Your task to perform on an android device: Search for "rayovac triple a" on target, select the first entry, add it to the cart, then select checkout. Image 0: 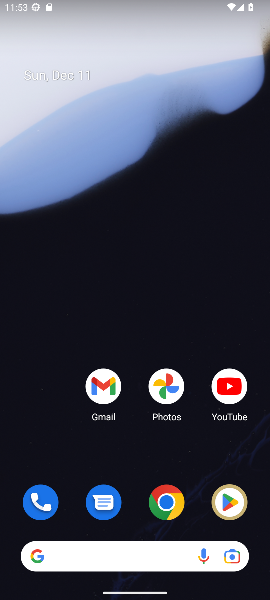
Step 0: click (131, 566)
Your task to perform on an android device: Search for "rayovac triple a" on target, select the first entry, add it to the cart, then select checkout. Image 1: 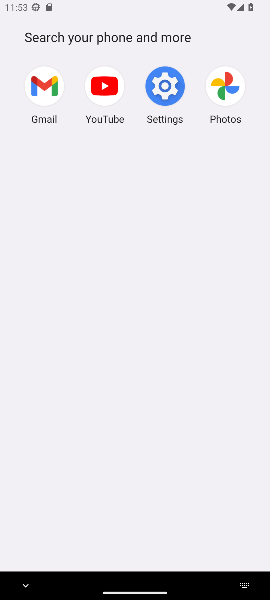
Step 1: press home button
Your task to perform on an android device: Search for "rayovac triple a" on target, select the first entry, add it to the cart, then select checkout. Image 2: 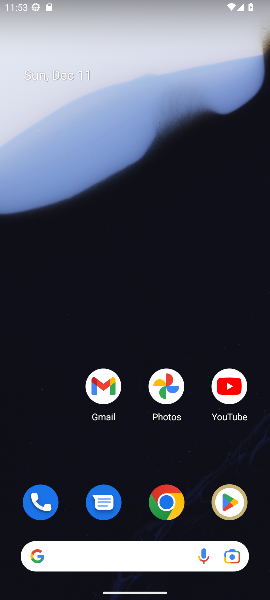
Step 2: click (177, 521)
Your task to perform on an android device: Search for "rayovac triple a" on target, select the first entry, add it to the cart, then select checkout. Image 3: 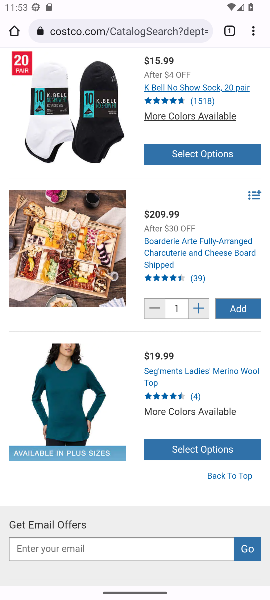
Step 3: click (169, 18)
Your task to perform on an android device: Search for "rayovac triple a" on target, select the first entry, add it to the cart, then select checkout. Image 4: 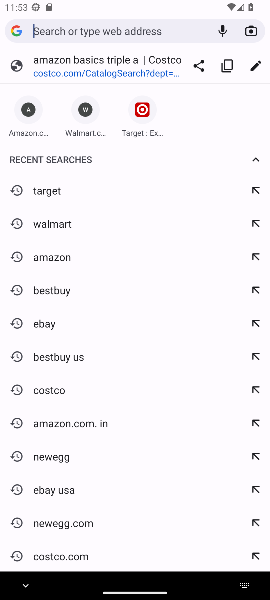
Step 4: type "target"
Your task to perform on an android device: Search for "rayovac triple a" on target, select the first entry, add it to the cart, then select checkout. Image 5: 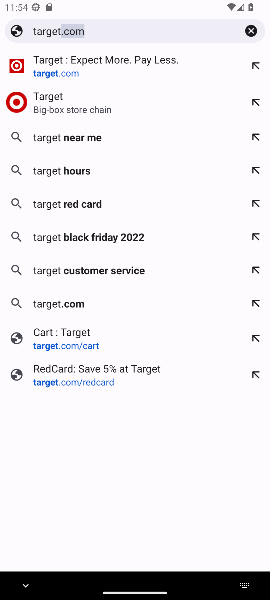
Step 5: click (106, 86)
Your task to perform on an android device: Search for "rayovac triple a" on target, select the first entry, add it to the cart, then select checkout. Image 6: 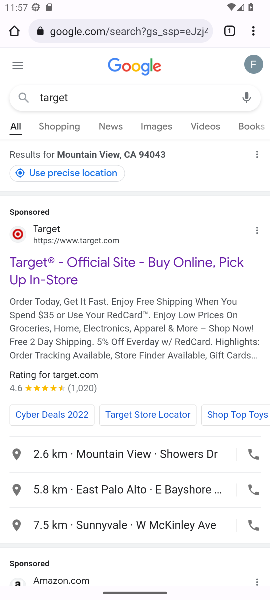
Step 6: click (175, 277)
Your task to perform on an android device: Search for "rayovac triple a" on target, select the first entry, add it to the cart, then select checkout. Image 7: 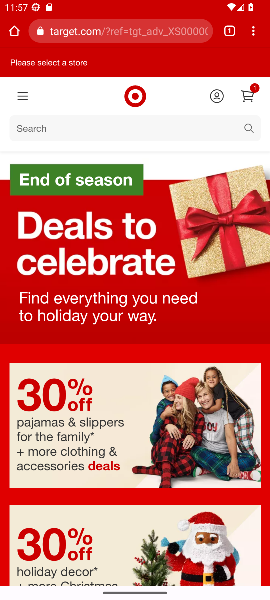
Step 7: click (149, 126)
Your task to perform on an android device: Search for "rayovac triple a" on target, select the first entry, add it to the cart, then select checkout. Image 8: 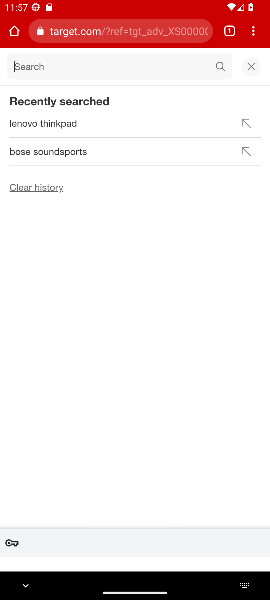
Step 8: type "rayovac triple"
Your task to perform on an android device: Search for "rayovac triple a" on target, select the first entry, add it to the cart, then select checkout. Image 9: 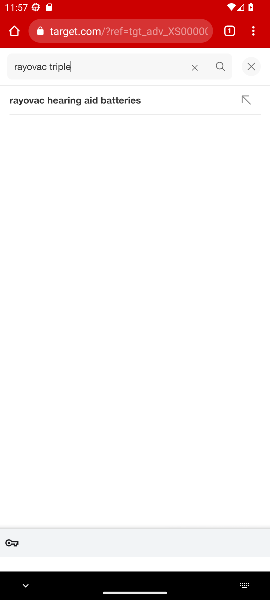
Step 9: click (114, 107)
Your task to perform on an android device: Search for "rayovac triple a" on target, select the first entry, add it to the cart, then select checkout. Image 10: 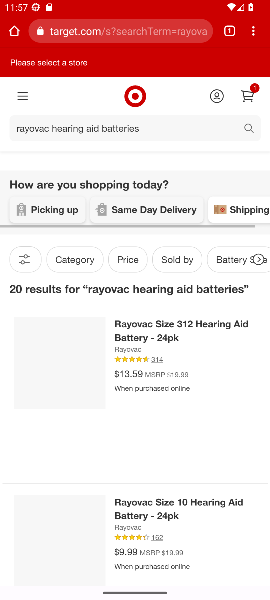
Step 10: click (176, 339)
Your task to perform on an android device: Search for "rayovac triple a" on target, select the first entry, add it to the cart, then select checkout. Image 11: 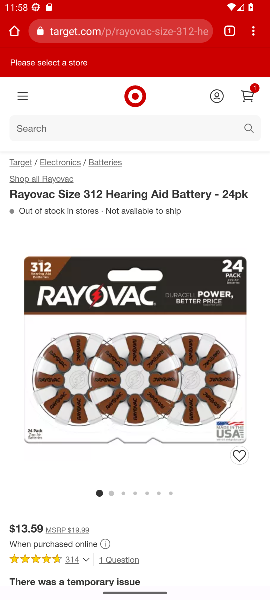
Step 11: drag from (138, 454) to (156, 189)
Your task to perform on an android device: Search for "rayovac triple a" on target, select the first entry, add it to the cart, then select checkout. Image 12: 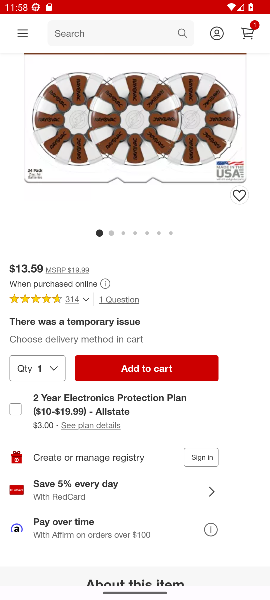
Step 12: click (151, 363)
Your task to perform on an android device: Search for "rayovac triple a" on target, select the first entry, add it to the cart, then select checkout. Image 13: 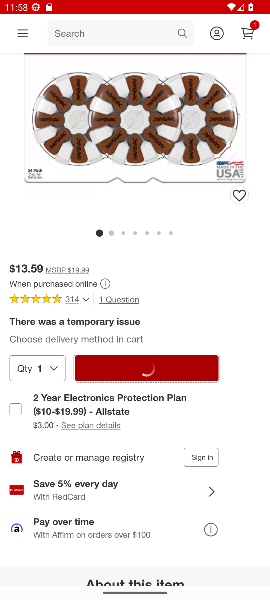
Step 13: task complete